Your task to perform on an android device: Toggle the flashlight Image 0: 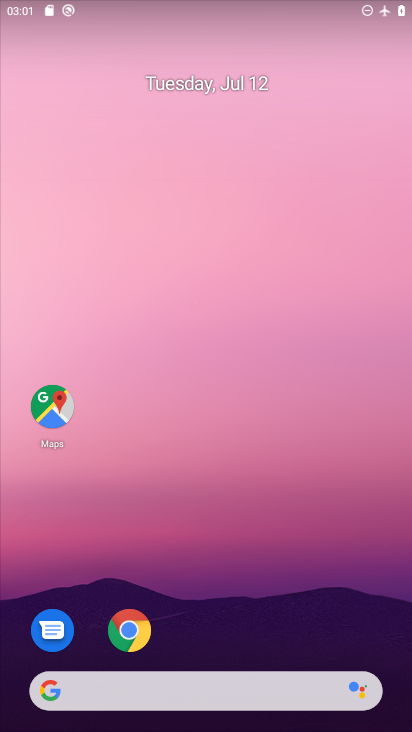
Step 0: drag from (236, 13) to (234, 353)
Your task to perform on an android device: Toggle the flashlight Image 1: 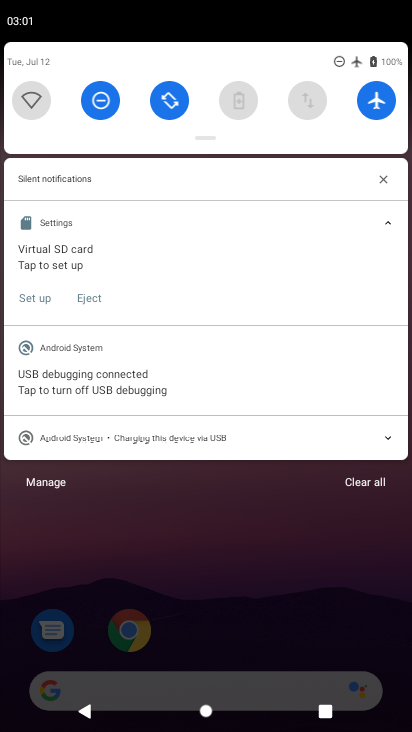
Step 1: drag from (205, 139) to (208, 334)
Your task to perform on an android device: Toggle the flashlight Image 2: 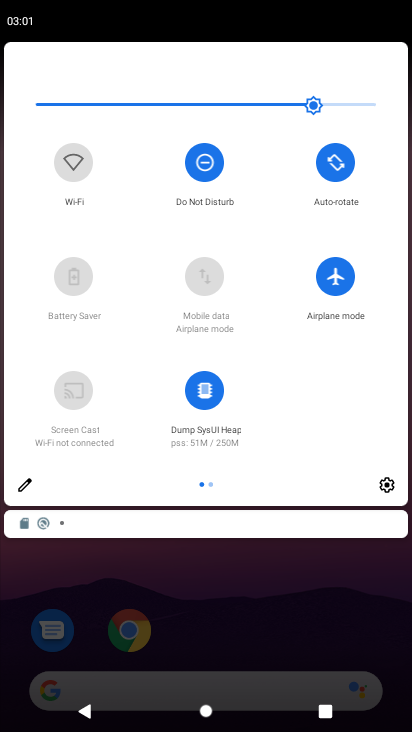
Step 2: click (23, 486)
Your task to perform on an android device: Toggle the flashlight Image 3: 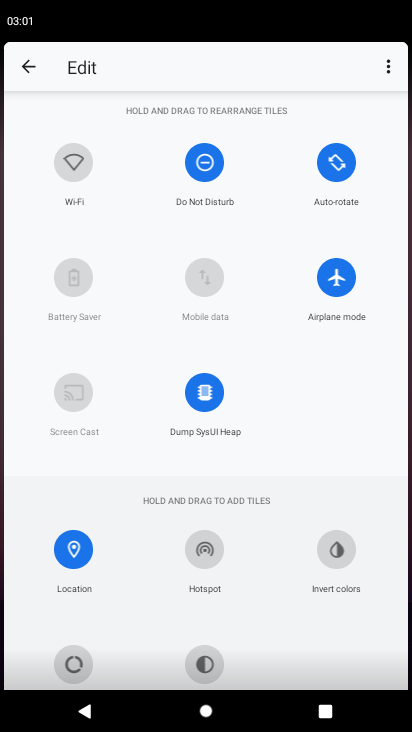
Step 3: task complete